Your task to perform on an android device: set the timer Image 0: 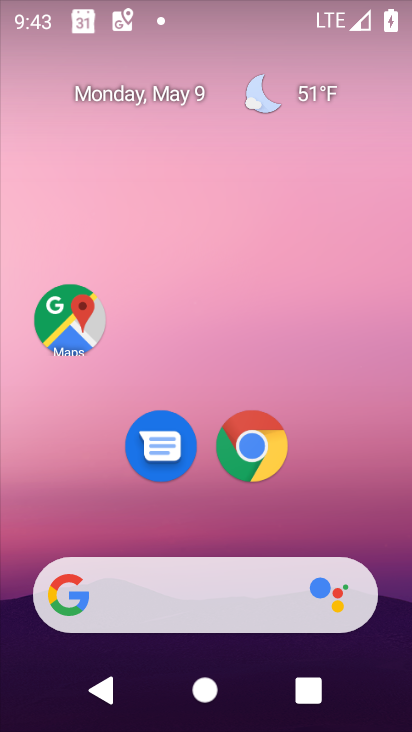
Step 0: drag from (311, 453) to (305, 99)
Your task to perform on an android device: set the timer Image 1: 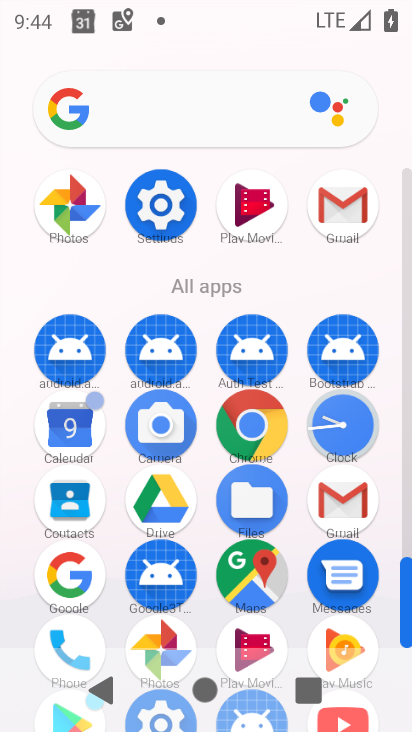
Step 1: click (347, 415)
Your task to perform on an android device: set the timer Image 2: 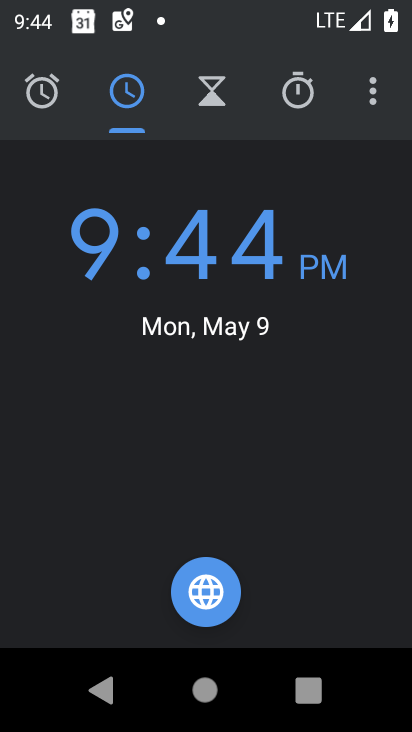
Step 2: click (209, 92)
Your task to perform on an android device: set the timer Image 3: 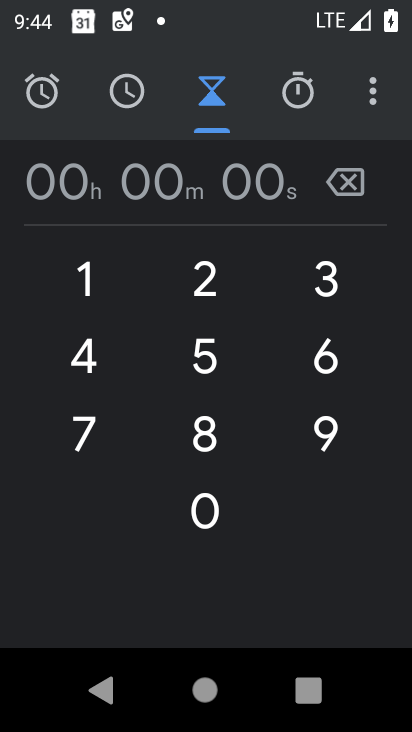
Step 3: click (86, 272)
Your task to perform on an android device: set the timer Image 4: 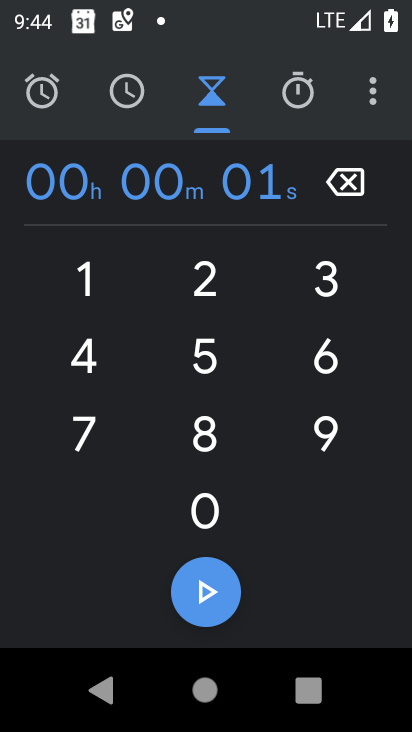
Step 4: click (208, 283)
Your task to perform on an android device: set the timer Image 5: 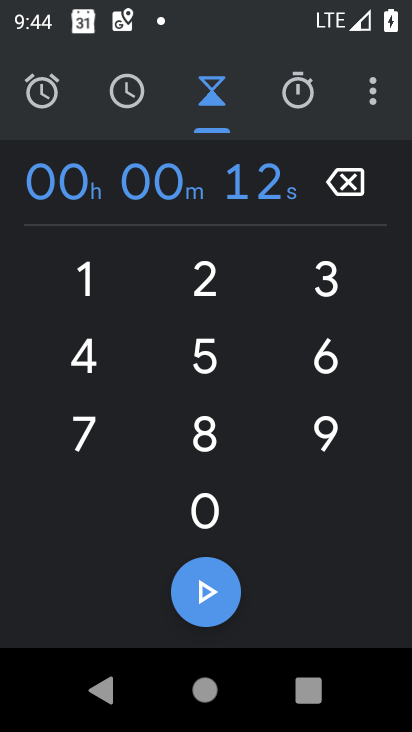
Step 5: click (323, 285)
Your task to perform on an android device: set the timer Image 6: 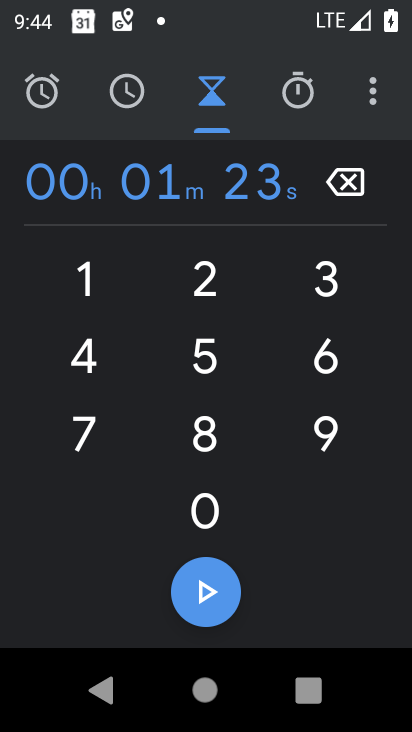
Step 6: click (106, 356)
Your task to perform on an android device: set the timer Image 7: 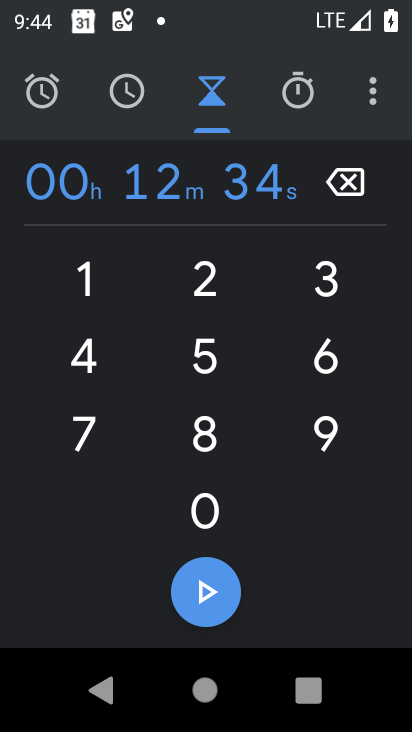
Step 7: click (217, 355)
Your task to perform on an android device: set the timer Image 8: 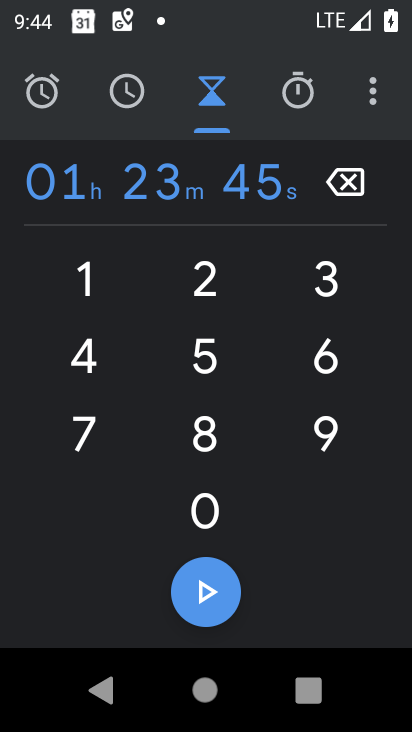
Step 8: click (227, 586)
Your task to perform on an android device: set the timer Image 9: 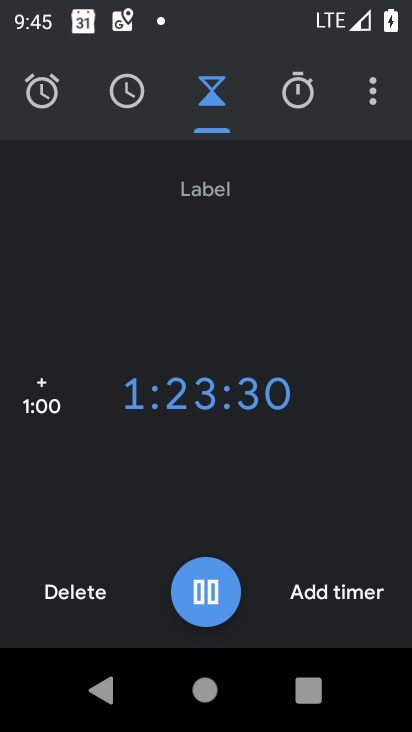
Step 9: task complete